Your task to perform on an android device: remove spam from my inbox in the gmail app Image 0: 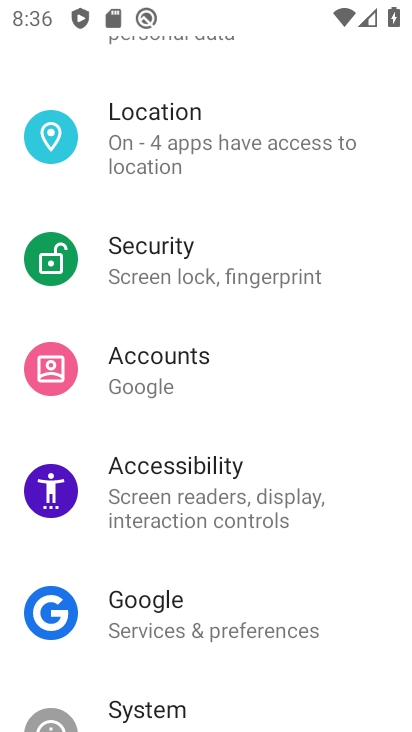
Step 0: press home button
Your task to perform on an android device: remove spam from my inbox in the gmail app Image 1: 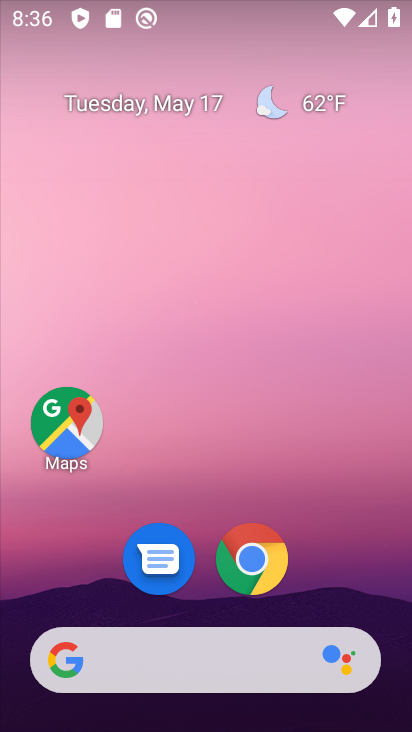
Step 1: drag from (153, 659) to (72, 224)
Your task to perform on an android device: remove spam from my inbox in the gmail app Image 2: 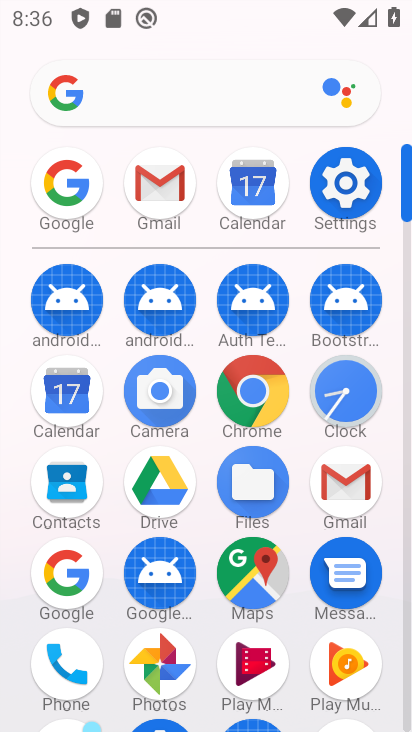
Step 2: click (144, 172)
Your task to perform on an android device: remove spam from my inbox in the gmail app Image 3: 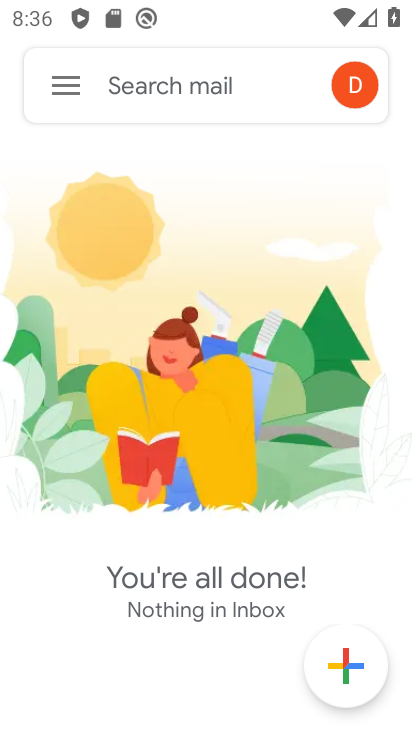
Step 3: click (65, 90)
Your task to perform on an android device: remove spam from my inbox in the gmail app Image 4: 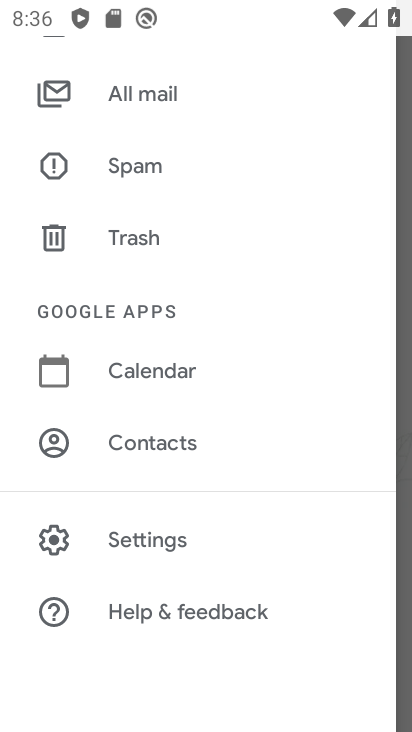
Step 4: click (105, 169)
Your task to perform on an android device: remove spam from my inbox in the gmail app Image 5: 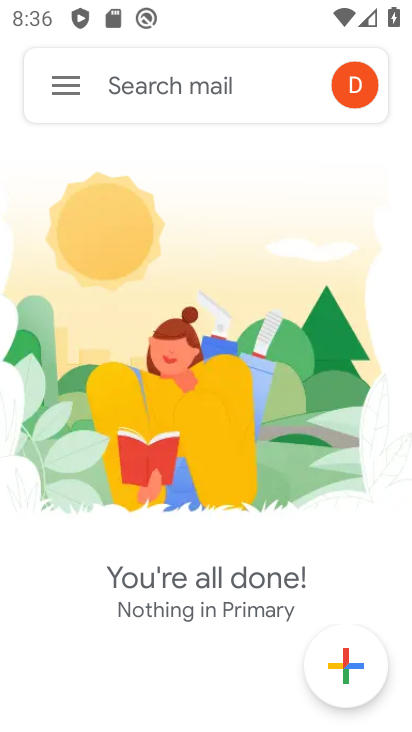
Step 5: click (73, 97)
Your task to perform on an android device: remove spam from my inbox in the gmail app Image 6: 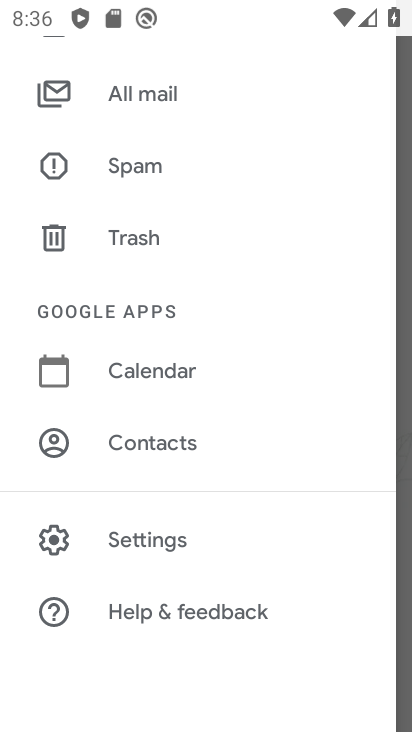
Step 6: click (123, 160)
Your task to perform on an android device: remove spam from my inbox in the gmail app Image 7: 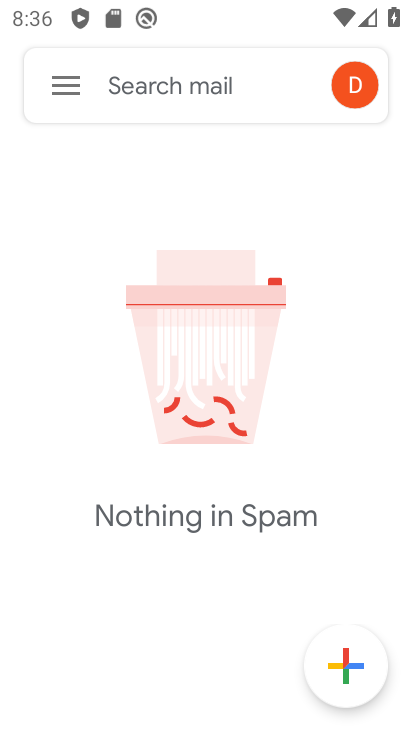
Step 7: task complete